Your task to perform on an android device: Open Youtube and go to the subscriptions tab Image 0: 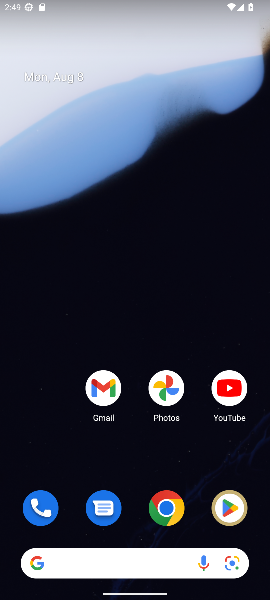
Step 0: click (232, 387)
Your task to perform on an android device: Open Youtube and go to the subscriptions tab Image 1: 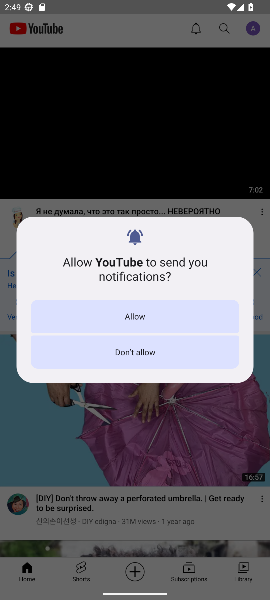
Step 1: click (125, 319)
Your task to perform on an android device: Open Youtube and go to the subscriptions tab Image 2: 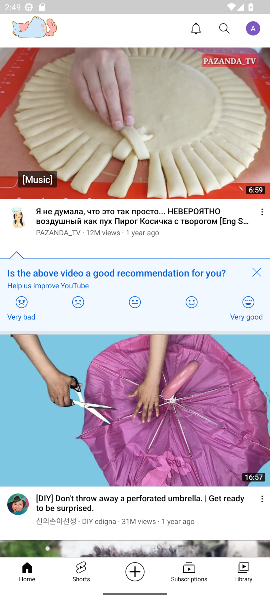
Step 2: click (181, 568)
Your task to perform on an android device: Open Youtube and go to the subscriptions tab Image 3: 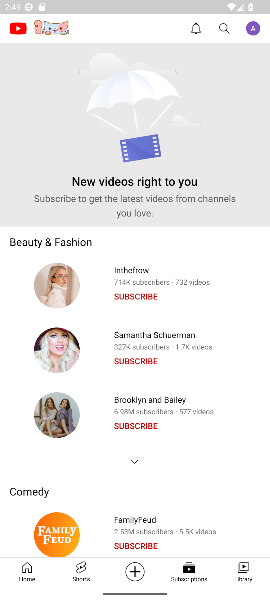
Step 3: task complete